Your task to perform on an android device: Is it going to rain this weekend? Image 0: 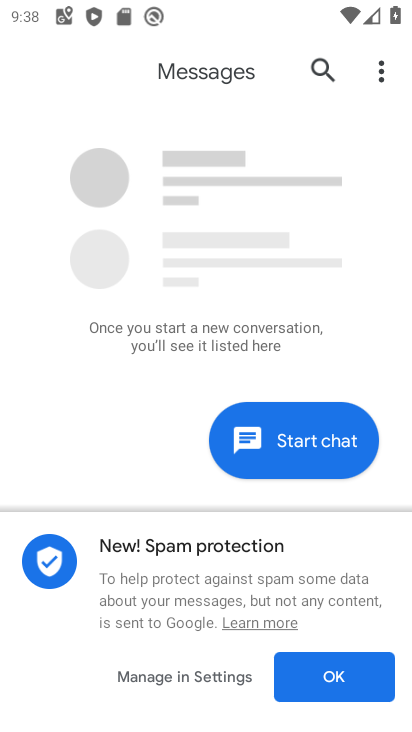
Step 0: press home button
Your task to perform on an android device: Is it going to rain this weekend? Image 1: 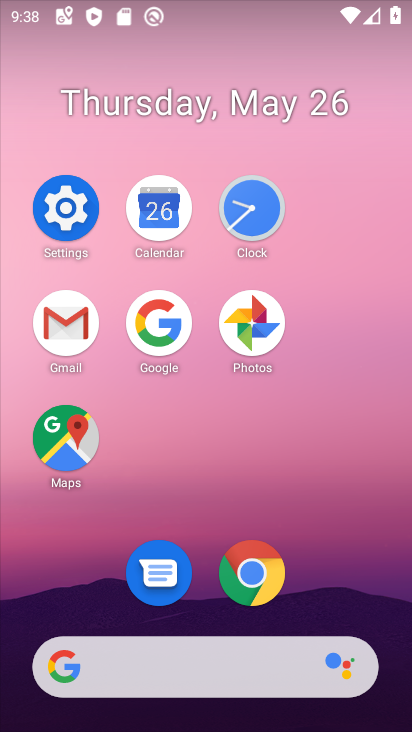
Step 1: click (158, 324)
Your task to perform on an android device: Is it going to rain this weekend? Image 2: 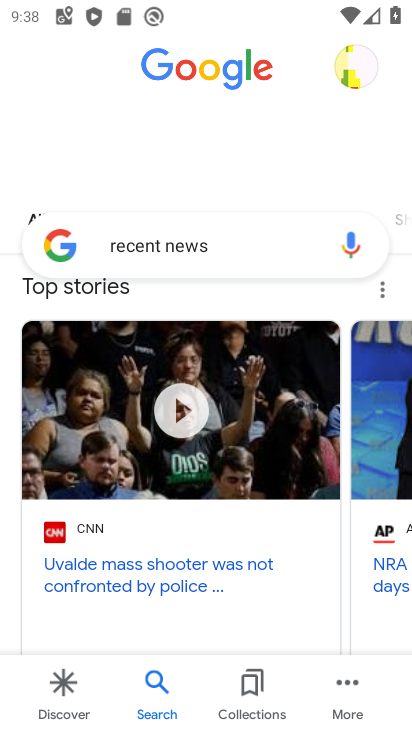
Step 2: click (286, 250)
Your task to perform on an android device: Is it going to rain this weekend? Image 3: 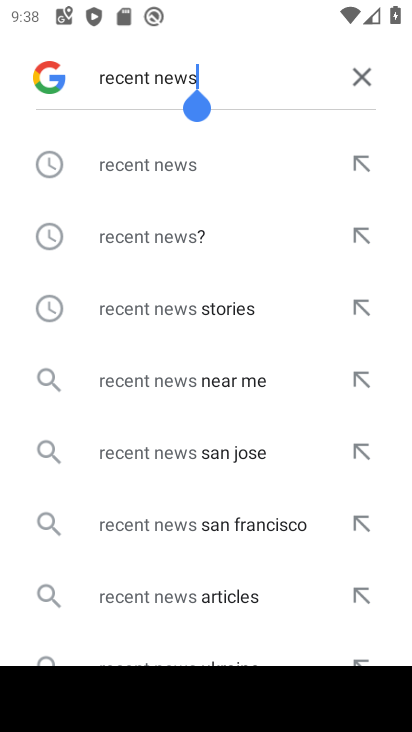
Step 3: click (363, 96)
Your task to perform on an android device: Is it going to rain this weekend? Image 4: 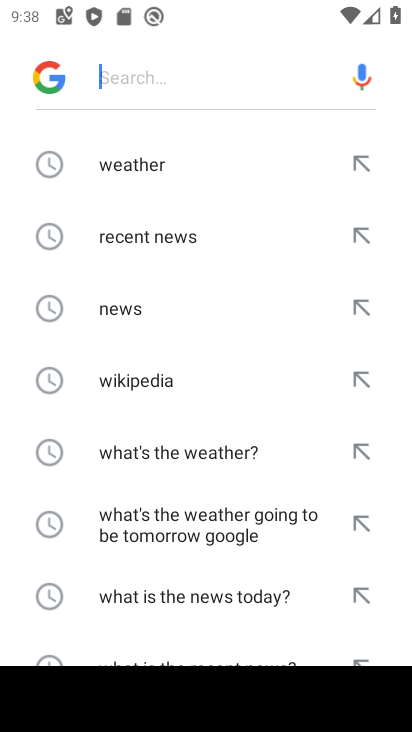
Step 4: click (161, 164)
Your task to perform on an android device: Is it going to rain this weekend? Image 5: 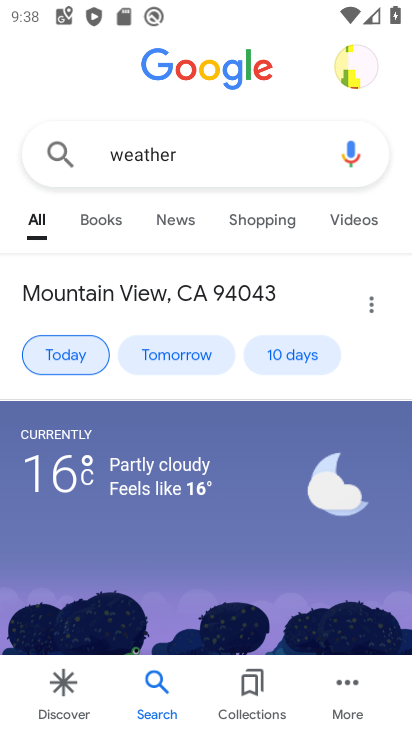
Step 5: click (293, 359)
Your task to perform on an android device: Is it going to rain this weekend? Image 6: 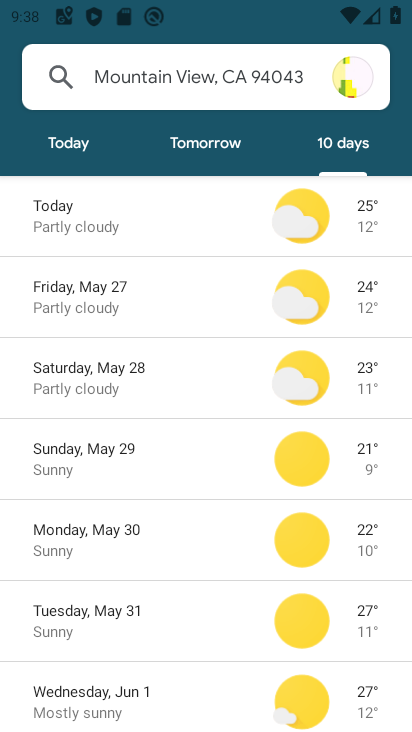
Step 6: click (123, 384)
Your task to perform on an android device: Is it going to rain this weekend? Image 7: 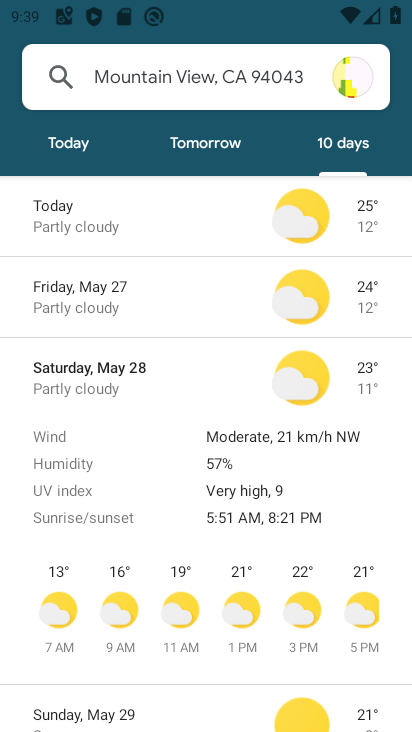
Step 7: task complete